Your task to perform on an android device: Open eBay Image 0: 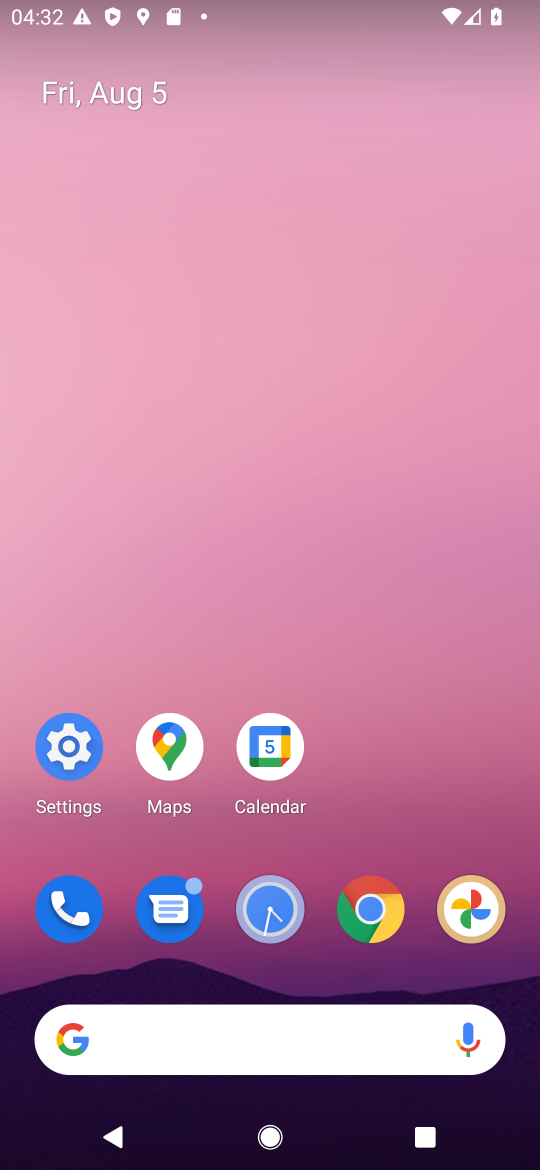
Step 0: click (367, 909)
Your task to perform on an android device: Open eBay Image 1: 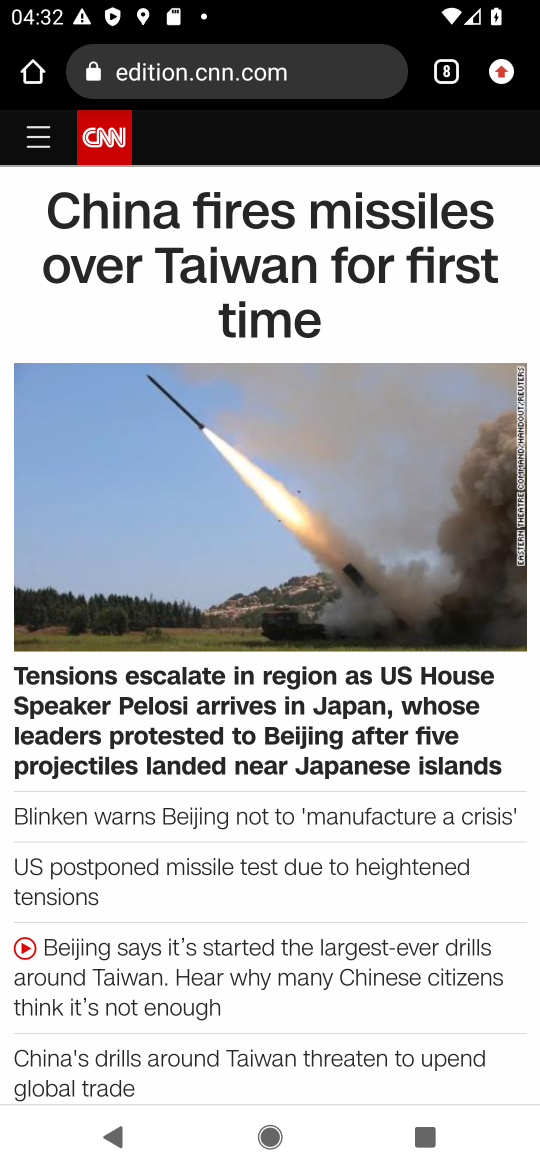
Step 1: click (500, 70)
Your task to perform on an android device: Open eBay Image 2: 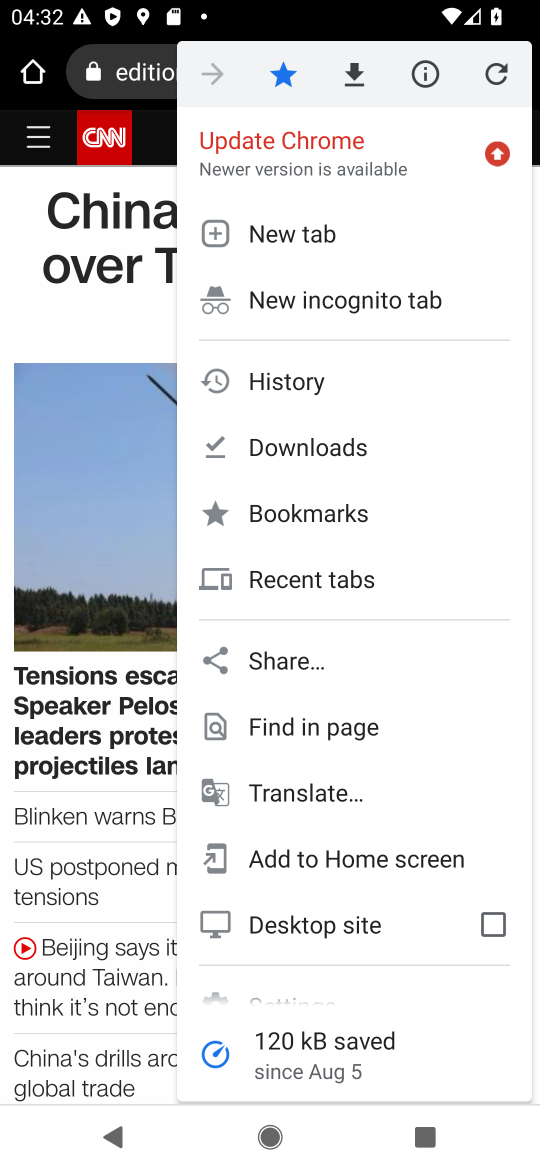
Step 2: click (295, 224)
Your task to perform on an android device: Open eBay Image 3: 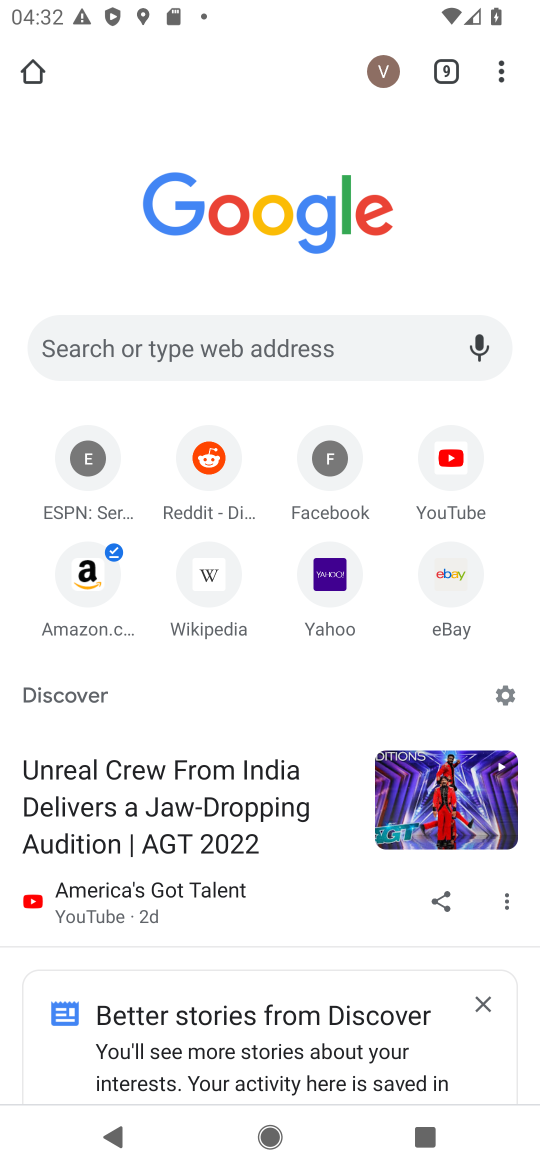
Step 3: click (449, 568)
Your task to perform on an android device: Open eBay Image 4: 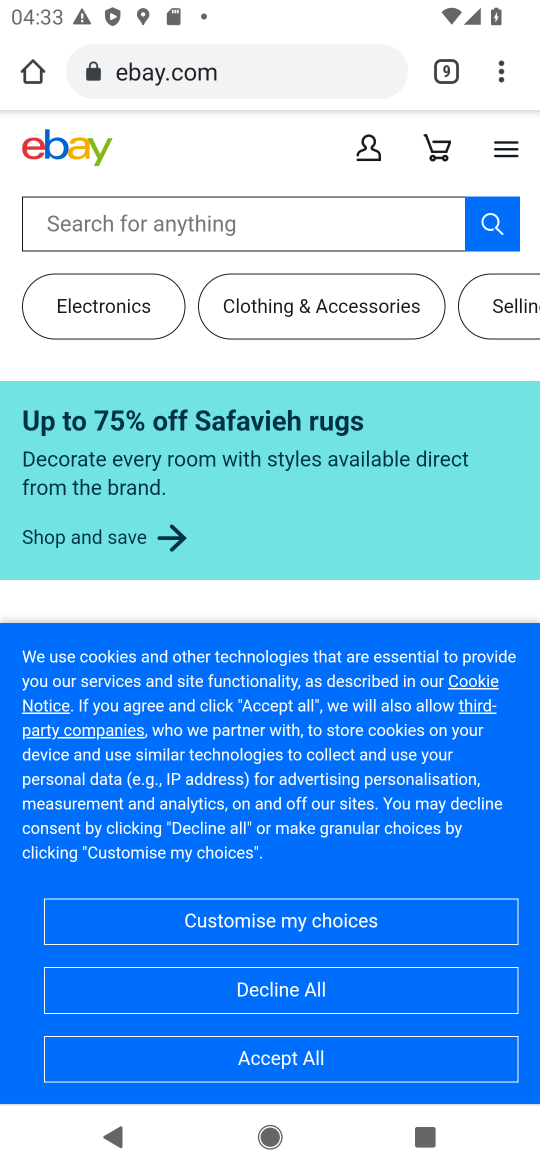
Step 4: task complete